Your task to perform on an android device: Open Chrome and go to settings Image 0: 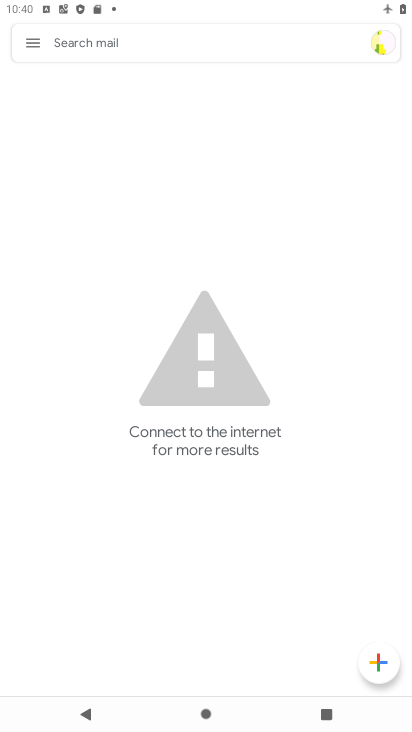
Step 0: press home button
Your task to perform on an android device: Open Chrome and go to settings Image 1: 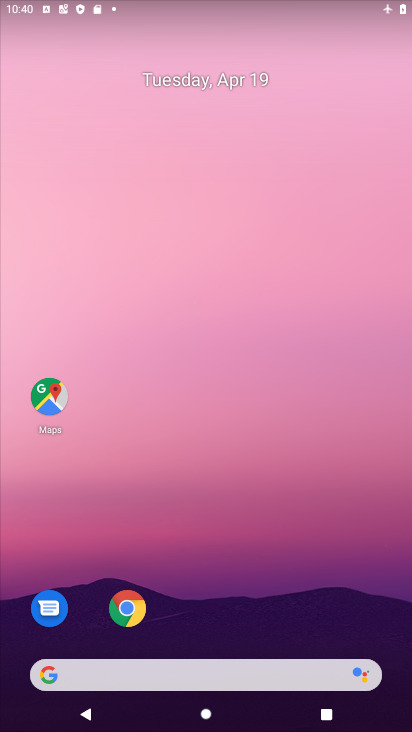
Step 1: click (126, 608)
Your task to perform on an android device: Open Chrome and go to settings Image 2: 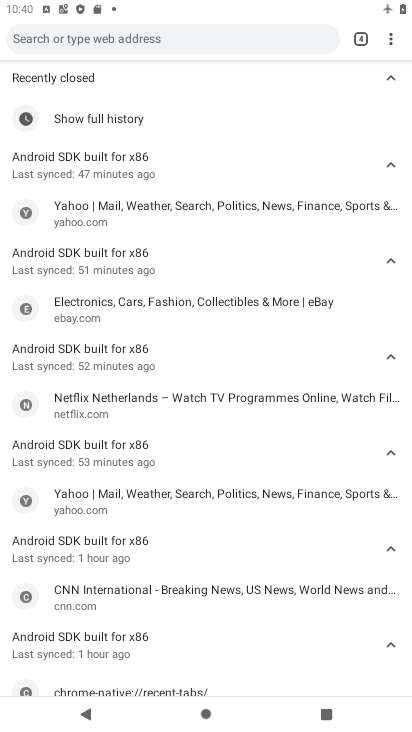
Step 2: click (387, 41)
Your task to perform on an android device: Open Chrome and go to settings Image 3: 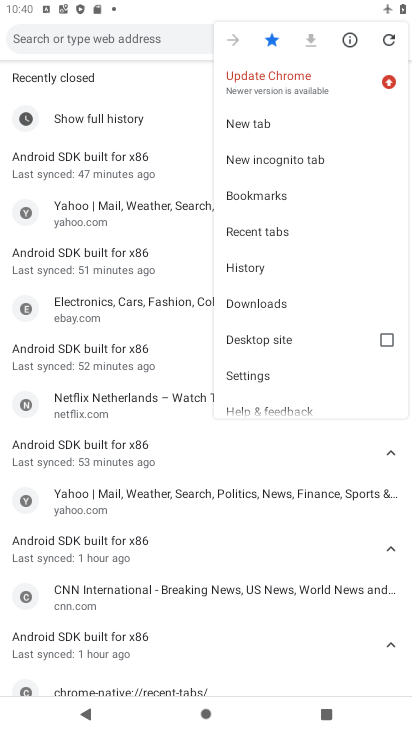
Step 3: click (255, 374)
Your task to perform on an android device: Open Chrome and go to settings Image 4: 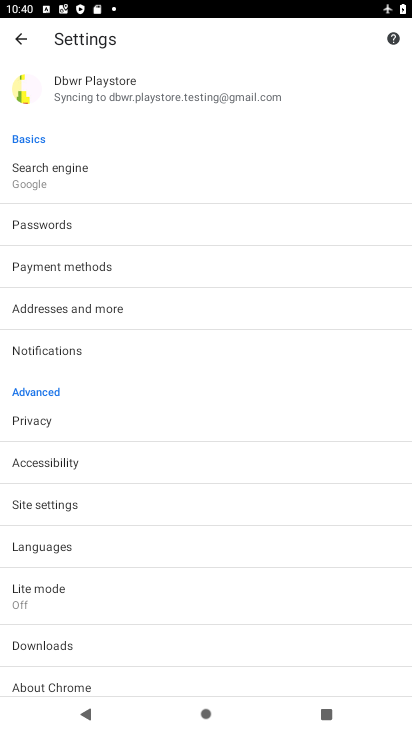
Step 4: task complete